Your task to perform on an android device: toggle priority inbox in the gmail app Image 0: 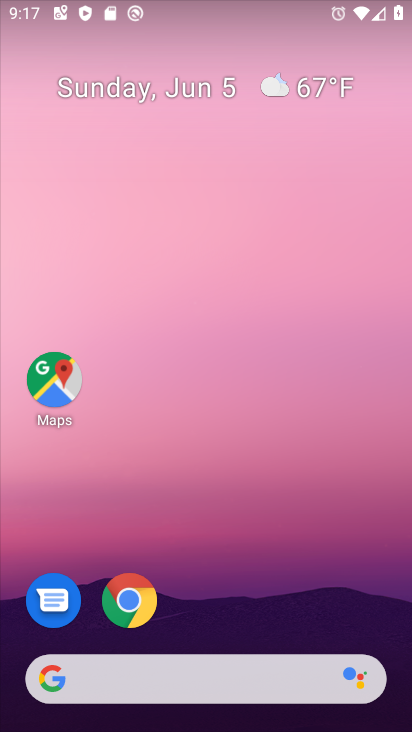
Step 0: drag from (364, 608) to (348, 43)
Your task to perform on an android device: toggle priority inbox in the gmail app Image 1: 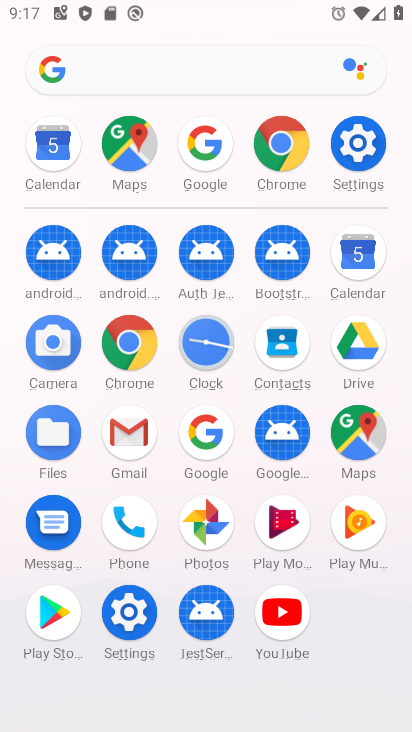
Step 1: click (124, 440)
Your task to perform on an android device: toggle priority inbox in the gmail app Image 2: 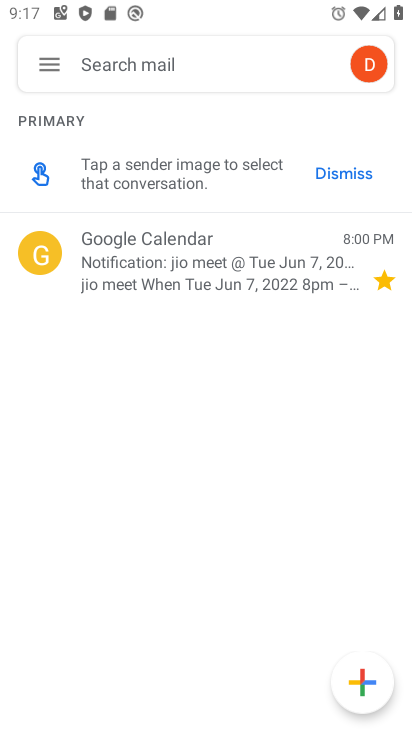
Step 2: click (51, 68)
Your task to perform on an android device: toggle priority inbox in the gmail app Image 3: 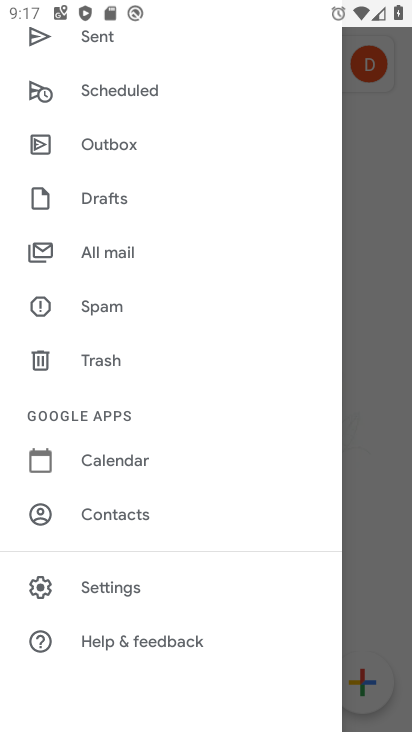
Step 3: click (104, 585)
Your task to perform on an android device: toggle priority inbox in the gmail app Image 4: 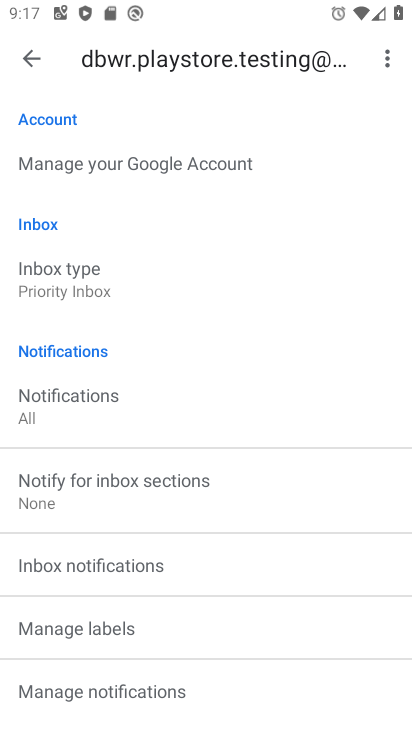
Step 4: click (152, 283)
Your task to perform on an android device: toggle priority inbox in the gmail app Image 5: 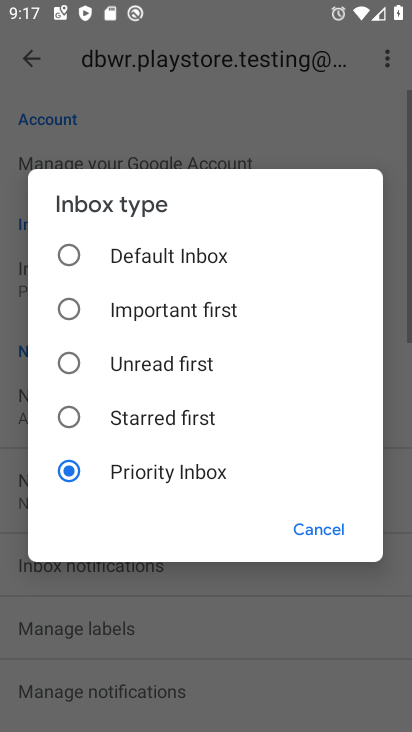
Step 5: click (89, 256)
Your task to perform on an android device: toggle priority inbox in the gmail app Image 6: 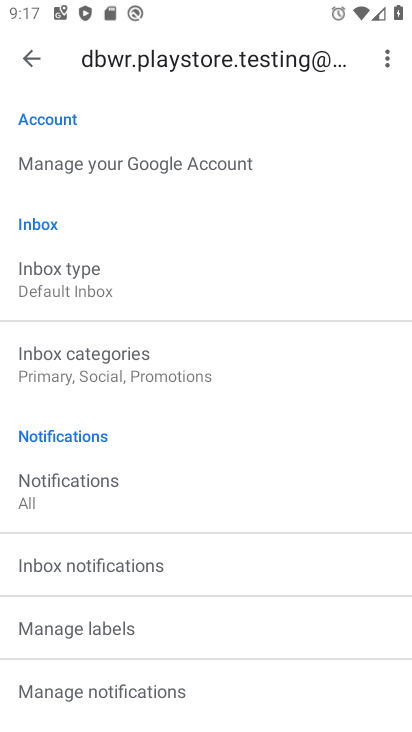
Step 6: task complete